Your task to perform on an android device: Open a new private tab in Chrome Image 0: 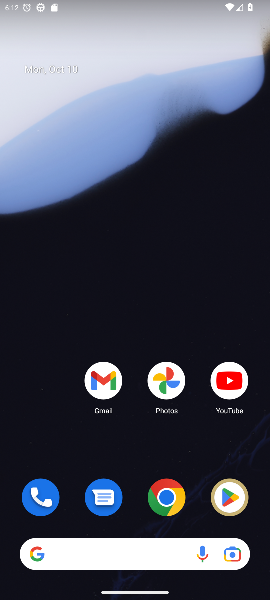
Step 0: drag from (119, 432) to (136, 98)
Your task to perform on an android device: Open a new private tab in Chrome Image 1: 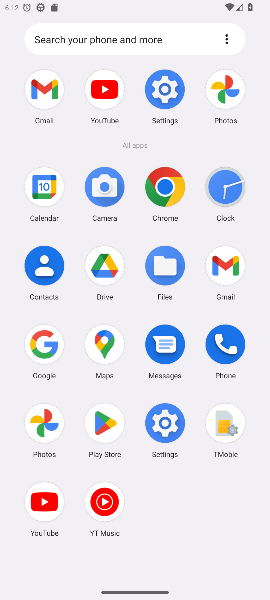
Step 1: click (163, 181)
Your task to perform on an android device: Open a new private tab in Chrome Image 2: 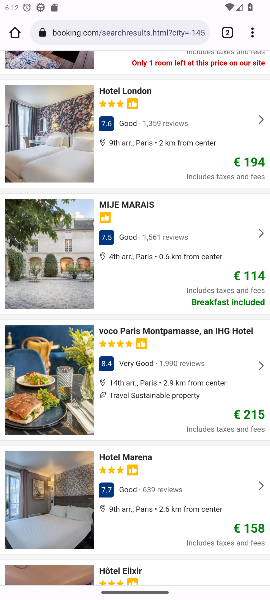
Step 2: click (246, 22)
Your task to perform on an android device: Open a new private tab in Chrome Image 3: 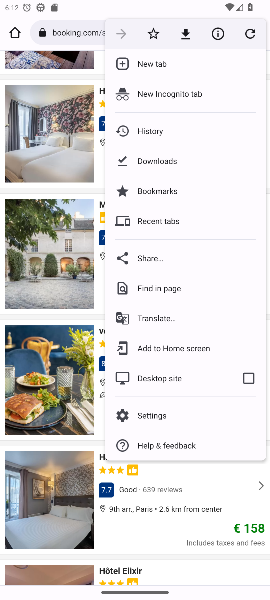
Step 3: click (158, 61)
Your task to perform on an android device: Open a new private tab in Chrome Image 4: 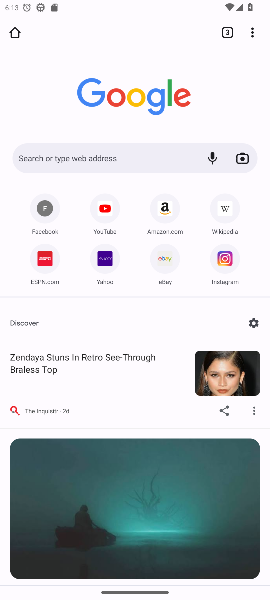
Step 4: task complete